Your task to perform on an android device: Show me popular videos on Youtube Image 0: 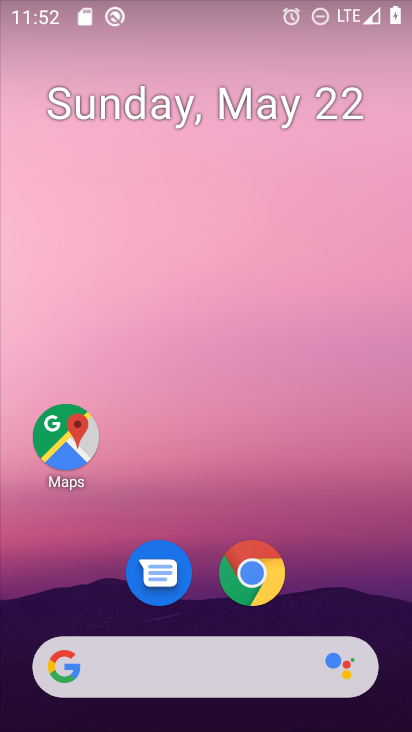
Step 0: drag from (308, 608) to (353, 24)
Your task to perform on an android device: Show me popular videos on Youtube Image 1: 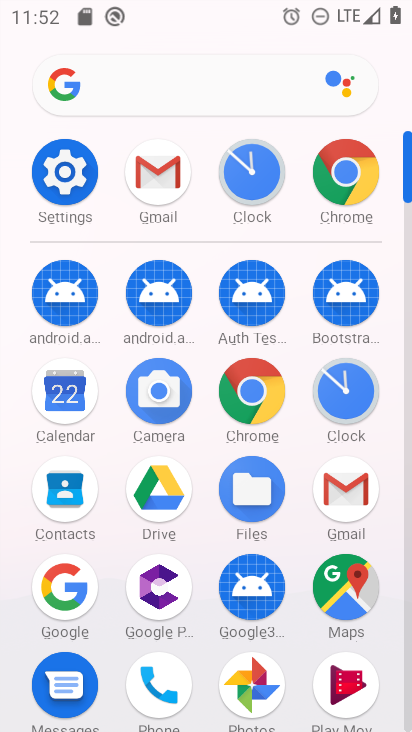
Step 1: drag from (296, 624) to (350, 211)
Your task to perform on an android device: Show me popular videos on Youtube Image 2: 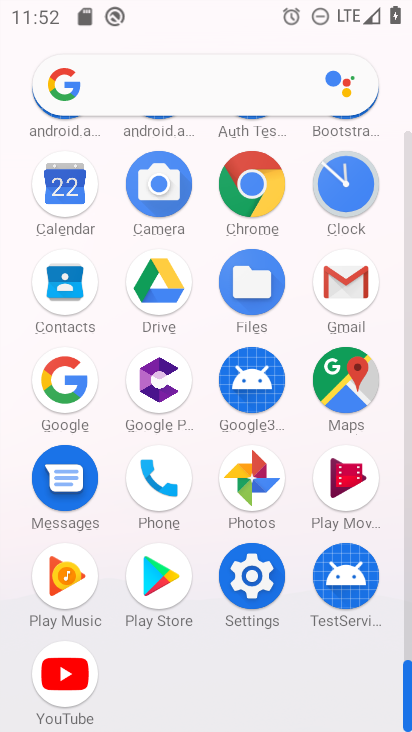
Step 2: click (69, 673)
Your task to perform on an android device: Show me popular videos on Youtube Image 3: 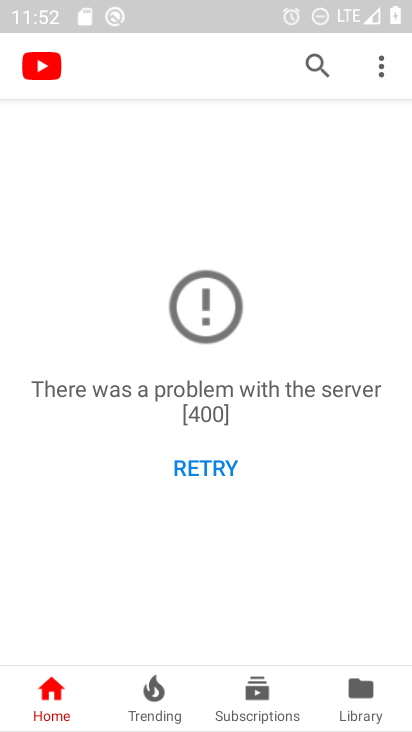
Step 3: click (191, 460)
Your task to perform on an android device: Show me popular videos on Youtube Image 4: 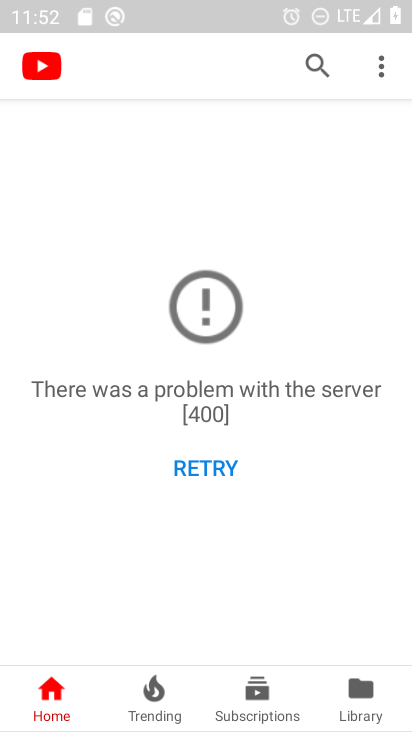
Step 4: click (191, 460)
Your task to perform on an android device: Show me popular videos on Youtube Image 5: 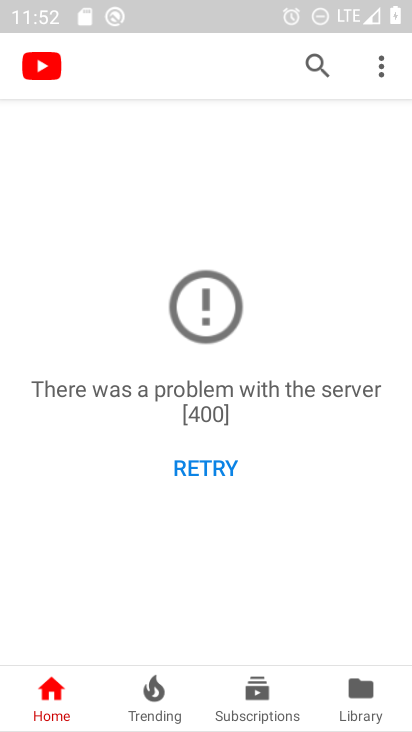
Step 5: click (191, 460)
Your task to perform on an android device: Show me popular videos on Youtube Image 6: 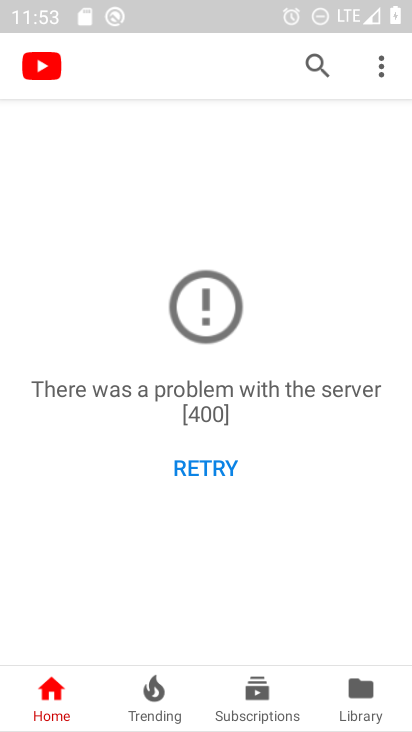
Step 6: task complete